Your task to perform on an android device: open a bookmark in the chrome app Image 0: 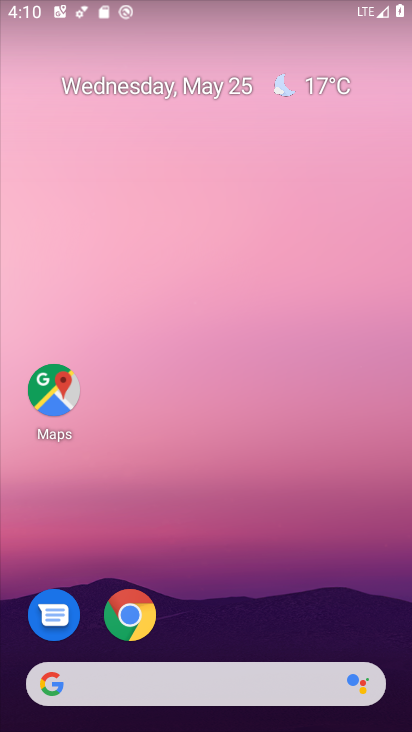
Step 0: click (136, 607)
Your task to perform on an android device: open a bookmark in the chrome app Image 1: 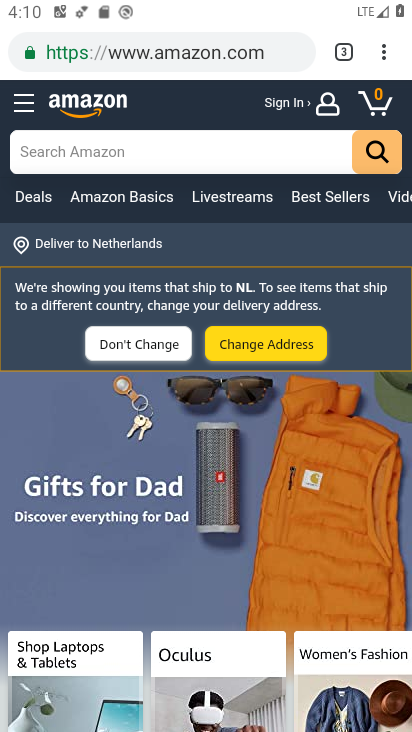
Step 1: click (378, 45)
Your task to perform on an android device: open a bookmark in the chrome app Image 2: 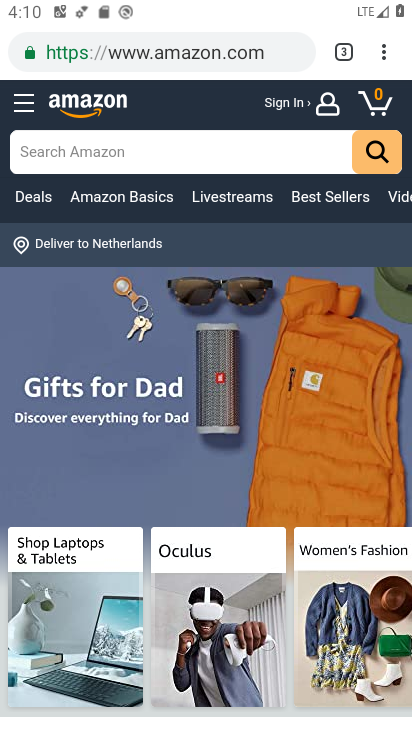
Step 2: click (389, 52)
Your task to perform on an android device: open a bookmark in the chrome app Image 3: 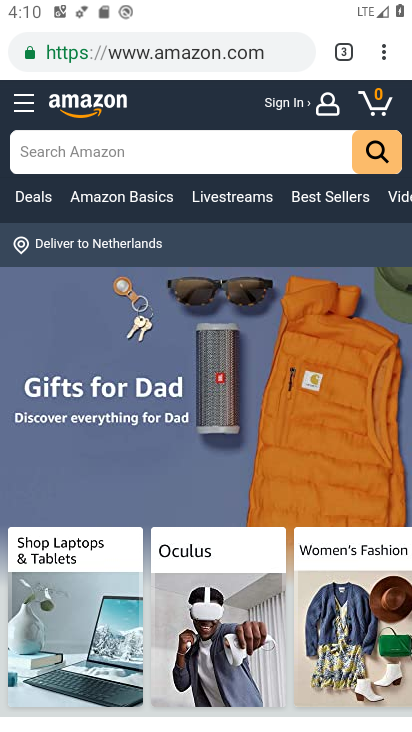
Step 3: click (385, 43)
Your task to perform on an android device: open a bookmark in the chrome app Image 4: 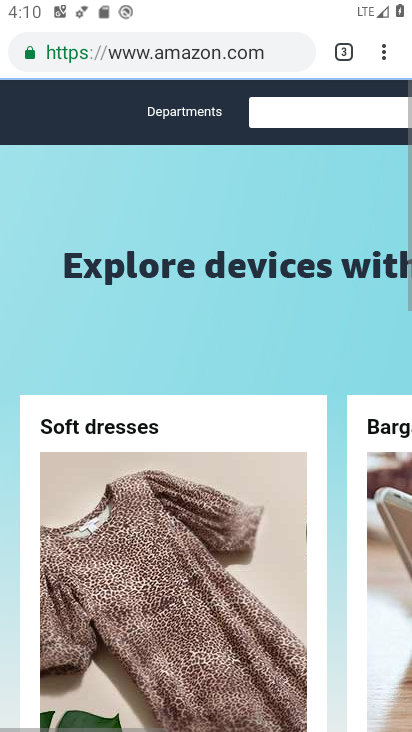
Step 4: click (382, 49)
Your task to perform on an android device: open a bookmark in the chrome app Image 5: 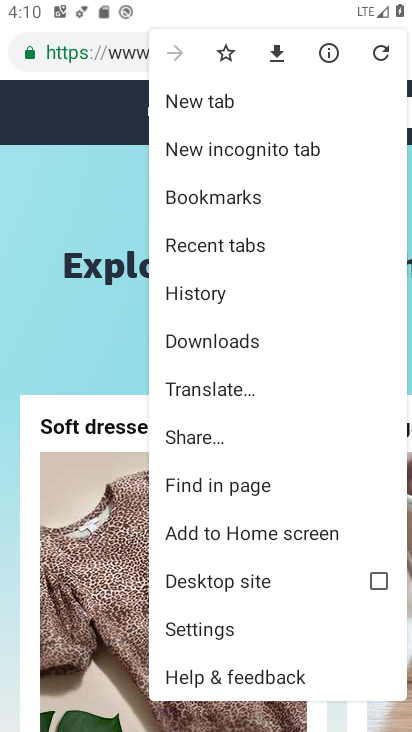
Step 5: click (219, 202)
Your task to perform on an android device: open a bookmark in the chrome app Image 6: 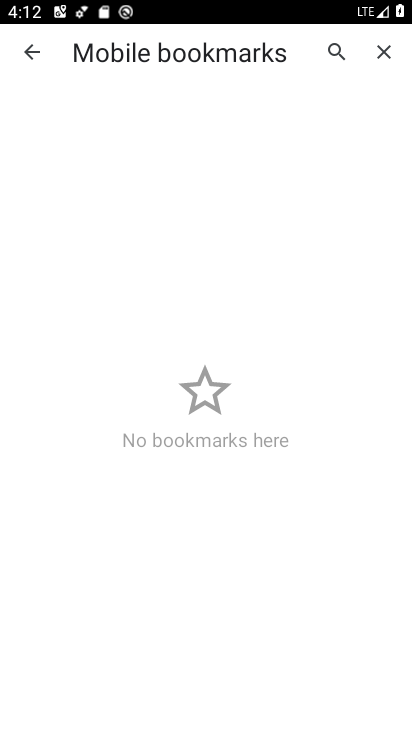
Step 6: task complete